Your task to perform on an android device: Open settings on Google Maps Image 0: 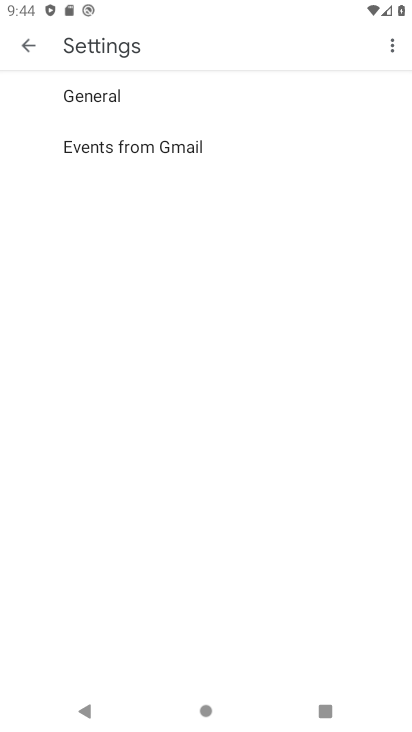
Step 0: press home button
Your task to perform on an android device: Open settings on Google Maps Image 1: 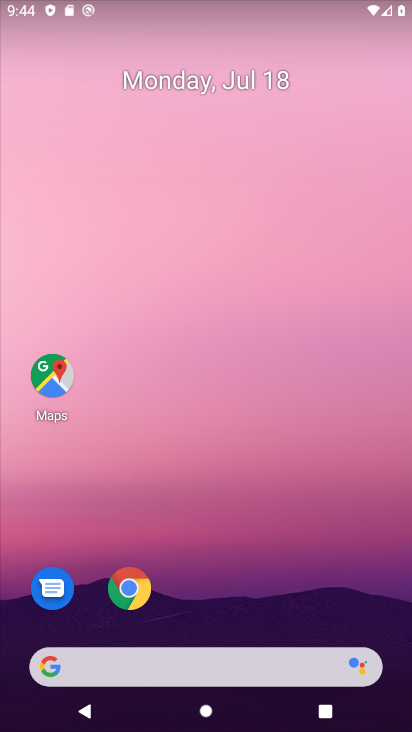
Step 1: drag from (241, 726) to (234, 162)
Your task to perform on an android device: Open settings on Google Maps Image 2: 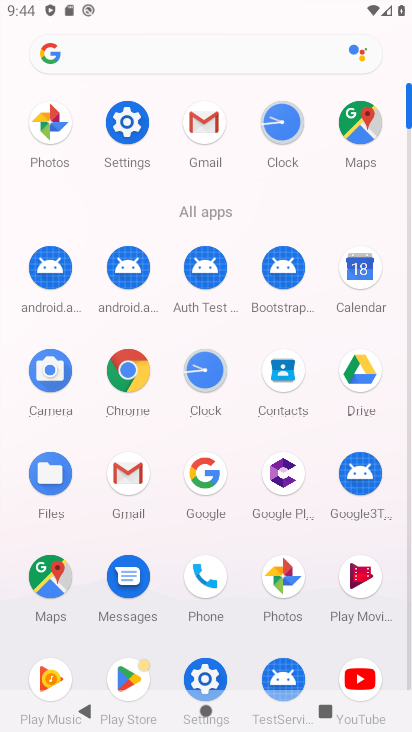
Step 2: click (46, 570)
Your task to perform on an android device: Open settings on Google Maps Image 3: 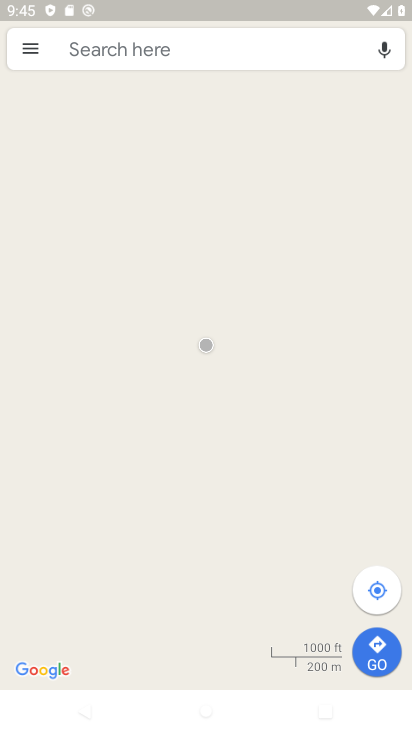
Step 3: click (27, 47)
Your task to perform on an android device: Open settings on Google Maps Image 4: 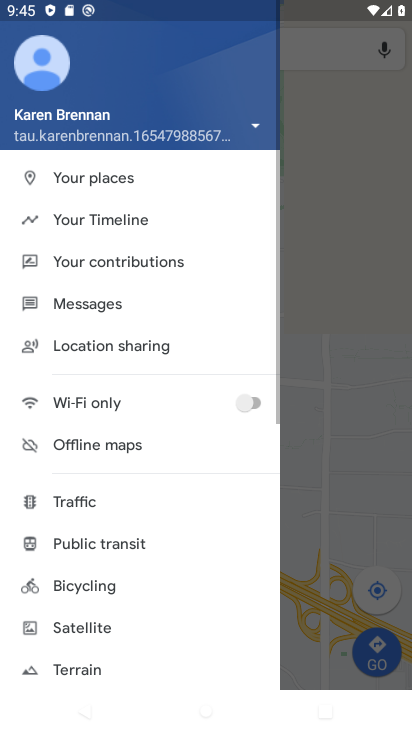
Step 4: drag from (90, 657) to (87, 280)
Your task to perform on an android device: Open settings on Google Maps Image 5: 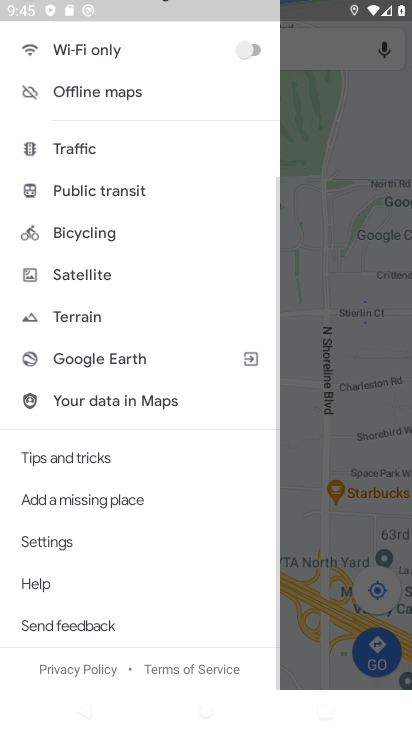
Step 5: click (54, 541)
Your task to perform on an android device: Open settings on Google Maps Image 6: 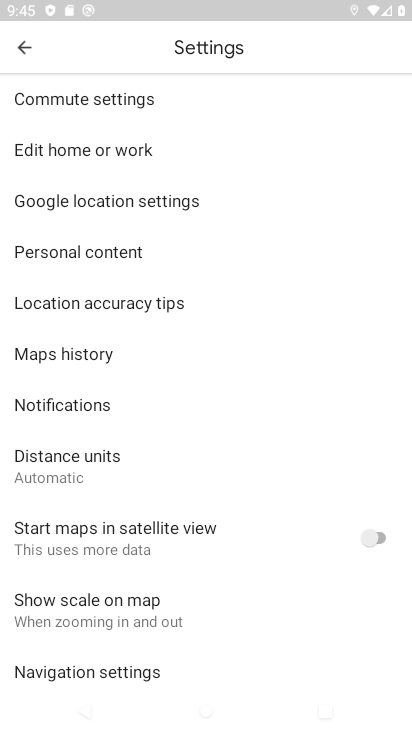
Step 6: task complete